Your task to perform on an android device: Go to settings Image 0: 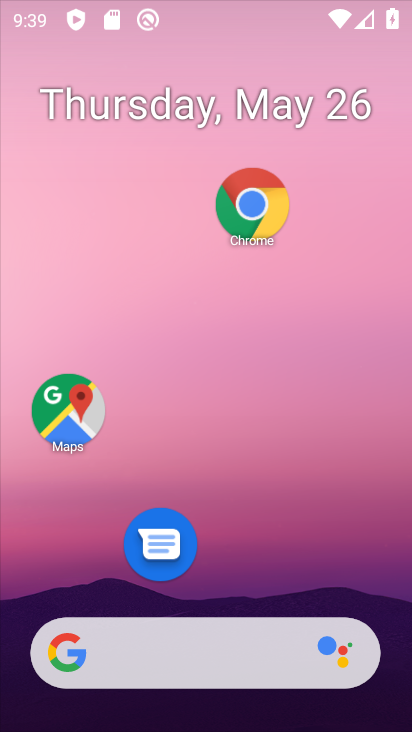
Step 0: press home button
Your task to perform on an android device: Go to settings Image 1: 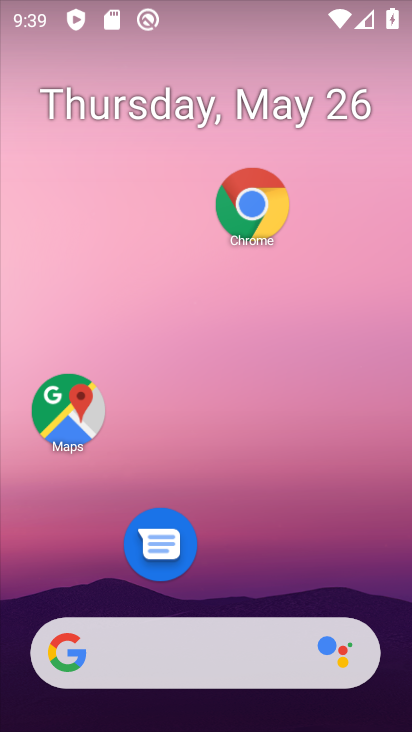
Step 1: drag from (215, 596) to (210, 90)
Your task to perform on an android device: Go to settings Image 2: 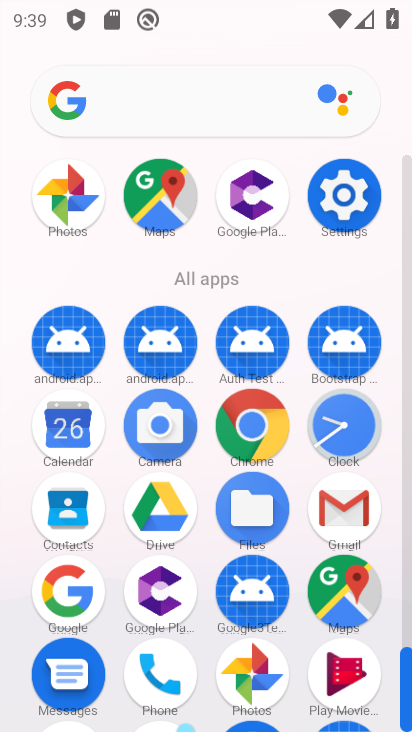
Step 2: click (338, 189)
Your task to perform on an android device: Go to settings Image 3: 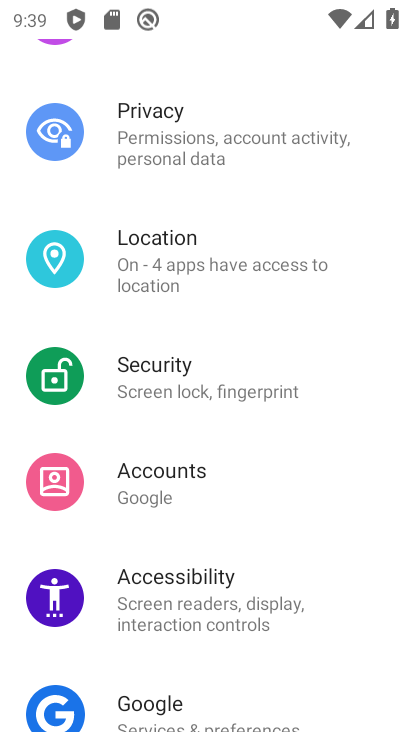
Step 3: task complete